Your task to perform on an android device: What's on my calendar today? Image 0: 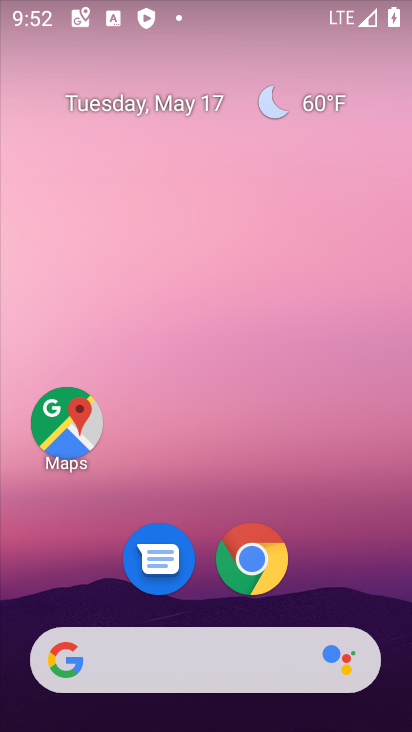
Step 0: drag from (208, 589) to (211, 201)
Your task to perform on an android device: What's on my calendar today? Image 1: 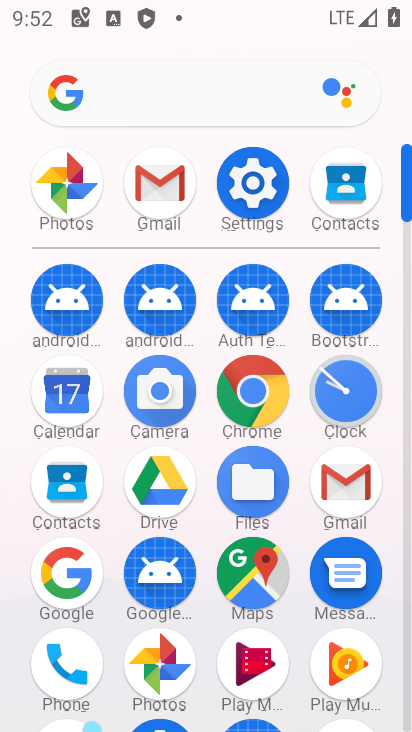
Step 1: click (77, 391)
Your task to perform on an android device: What's on my calendar today? Image 2: 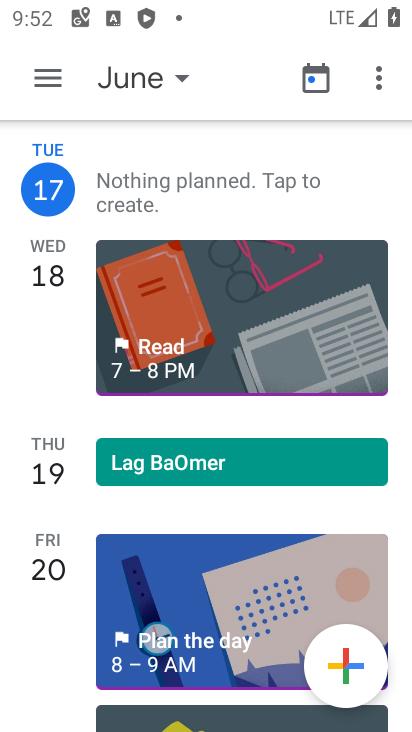
Step 2: click (154, 85)
Your task to perform on an android device: What's on my calendar today? Image 3: 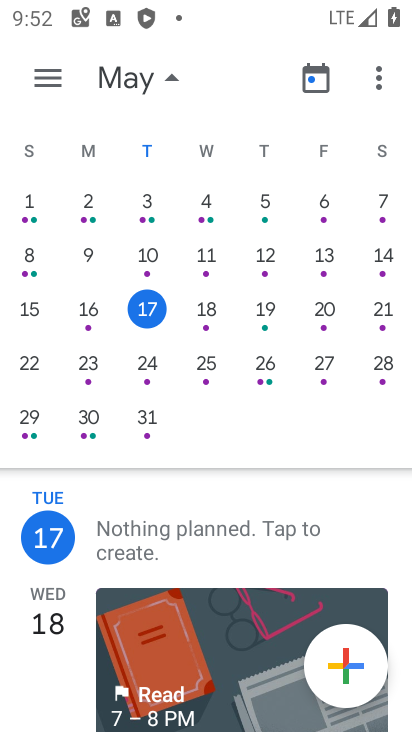
Step 3: drag from (98, 294) to (364, 285)
Your task to perform on an android device: What's on my calendar today? Image 4: 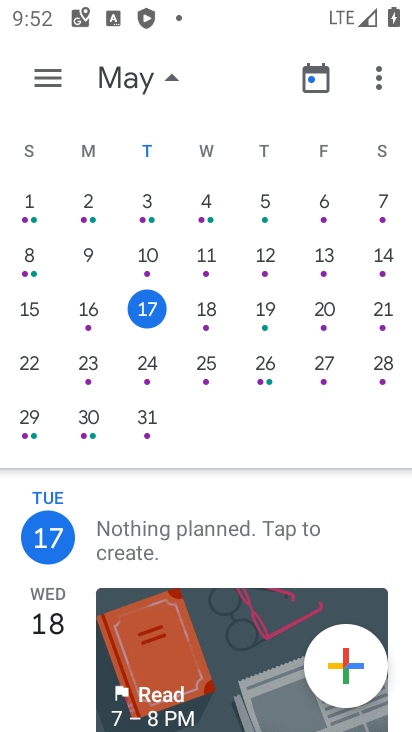
Step 4: click (157, 311)
Your task to perform on an android device: What's on my calendar today? Image 5: 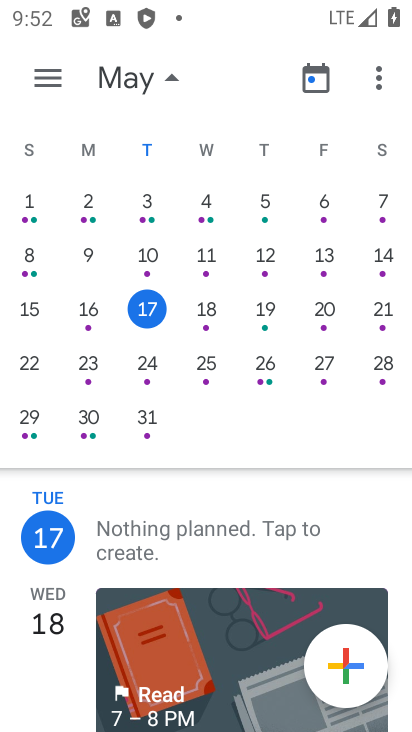
Step 5: task complete